Your task to perform on an android device: Open Reddit.com Image 0: 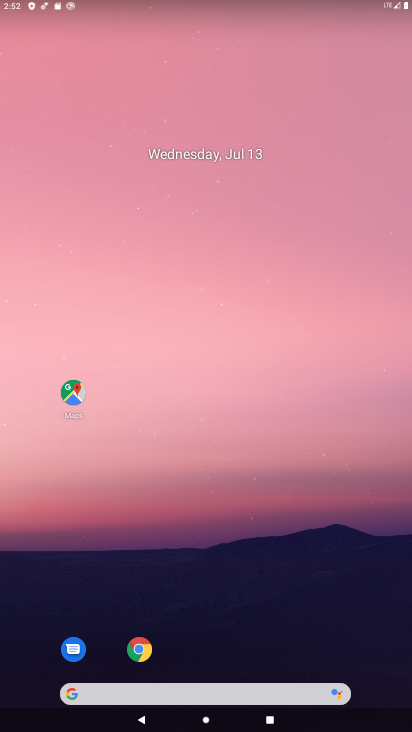
Step 0: click (137, 649)
Your task to perform on an android device: Open Reddit.com Image 1: 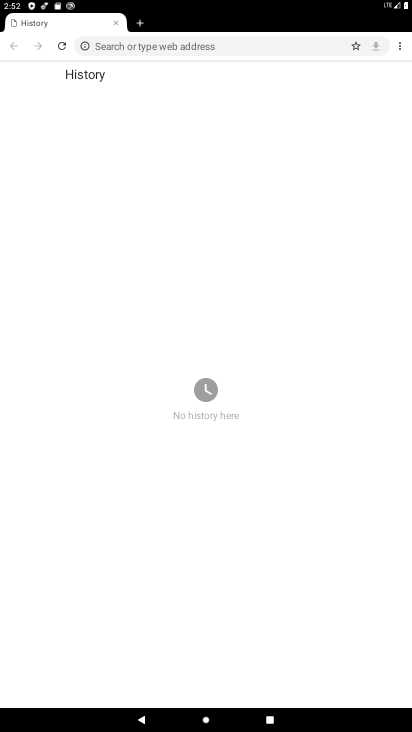
Step 1: click (143, 22)
Your task to perform on an android device: Open Reddit.com Image 2: 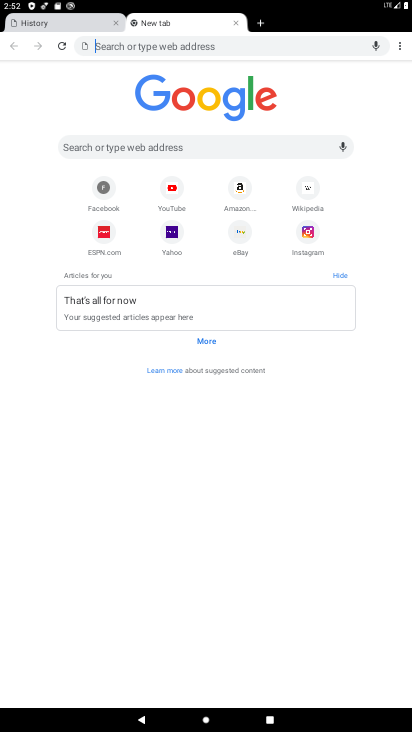
Step 2: click (159, 143)
Your task to perform on an android device: Open Reddit.com Image 3: 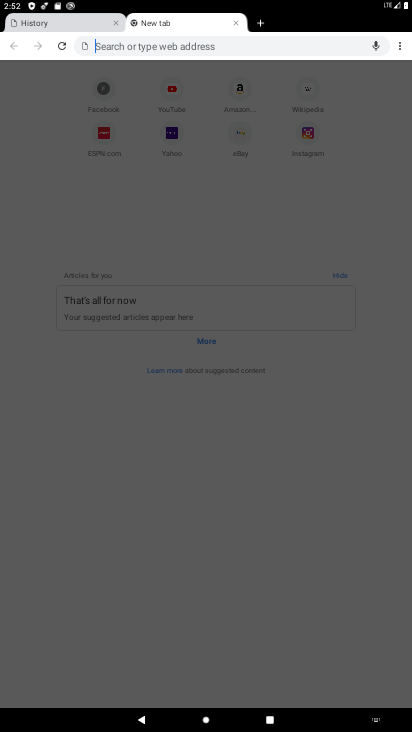
Step 3: type "reddit"
Your task to perform on an android device: Open Reddit.com Image 4: 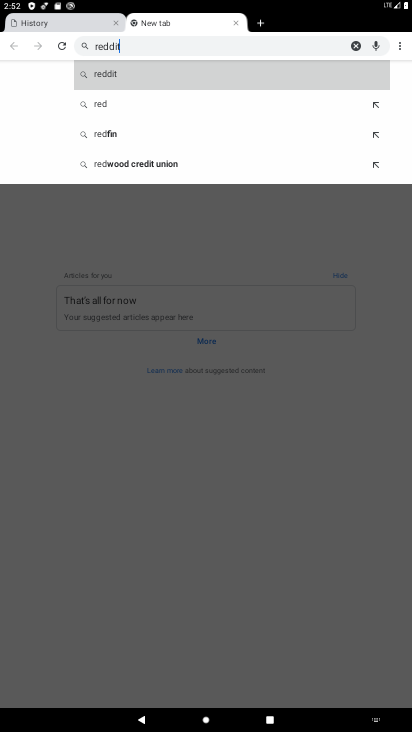
Step 4: type ""
Your task to perform on an android device: Open Reddit.com Image 5: 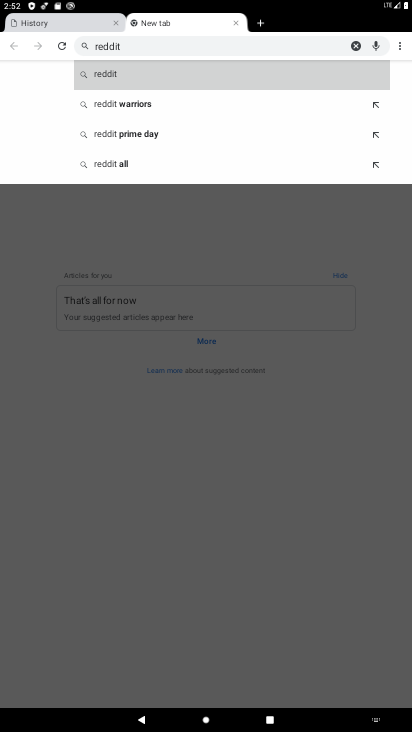
Step 5: click (113, 67)
Your task to perform on an android device: Open Reddit.com Image 6: 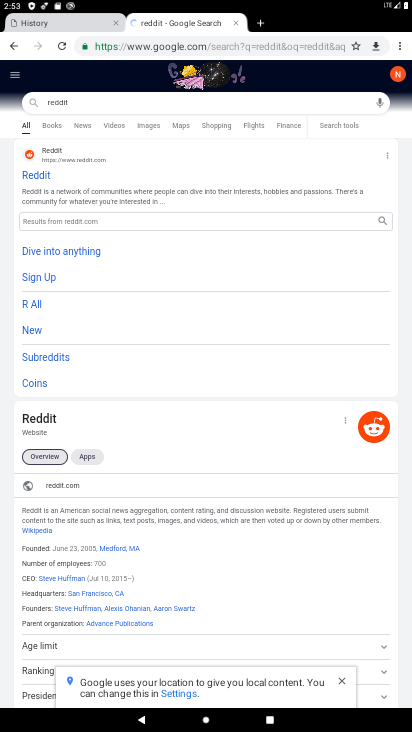
Step 6: click (38, 171)
Your task to perform on an android device: Open Reddit.com Image 7: 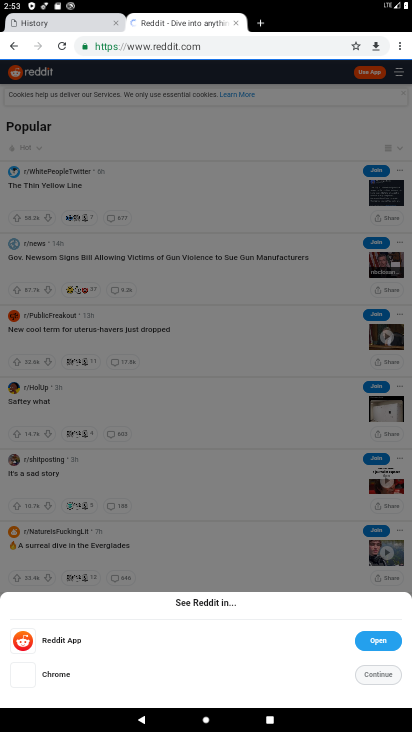
Step 7: drag from (219, 559) to (200, 202)
Your task to perform on an android device: Open Reddit.com Image 8: 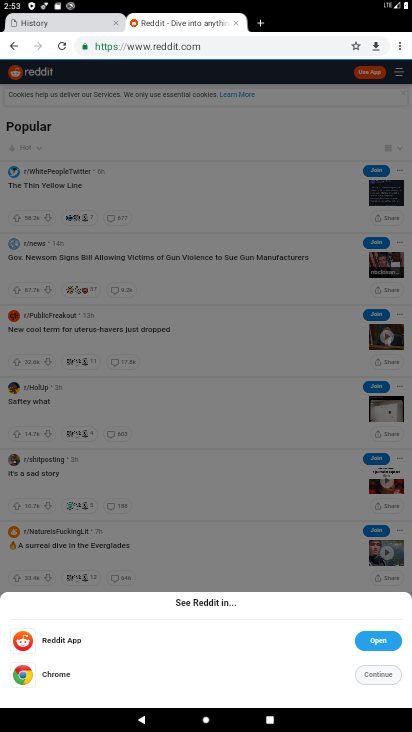
Step 8: click (376, 678)
Your task to perform on an android device: Open Reddit.com Image 9: 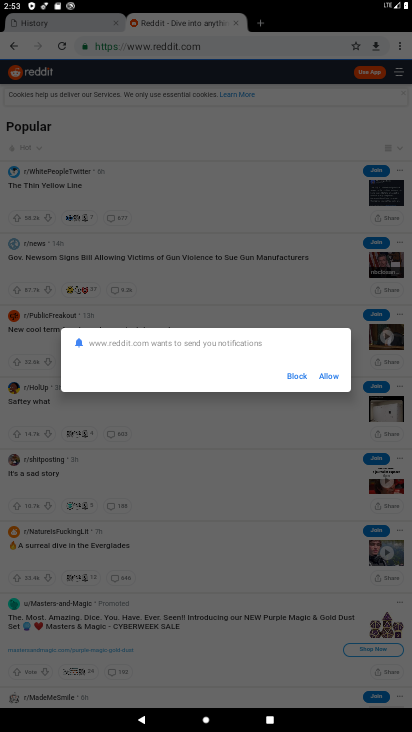
Step 9: click (326, 377)
Your task to perform on an android device: Open Reddit.com Image 10: 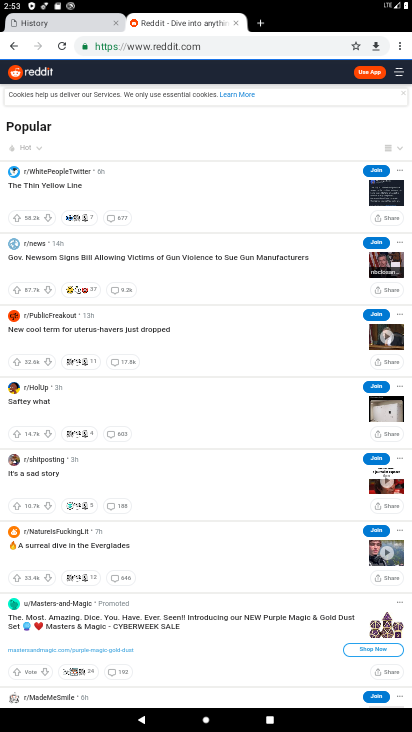
Step 10: task complete